Your task to perform on an android device: Search for seafood restaurants on Google Maps Image 0: 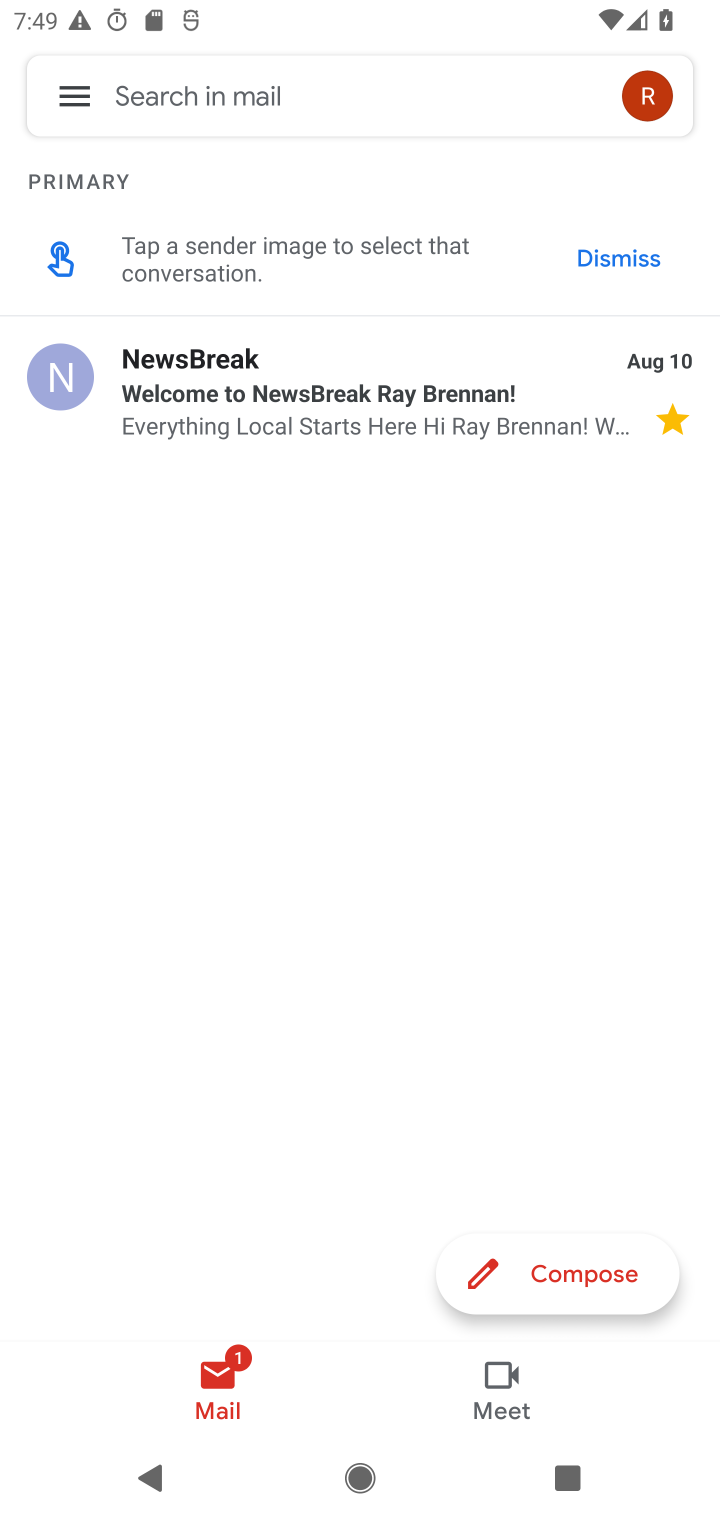
Step 0: press home button
Your task to perform on an android device: Search for seafood restaurants on Google Maps Image 1: 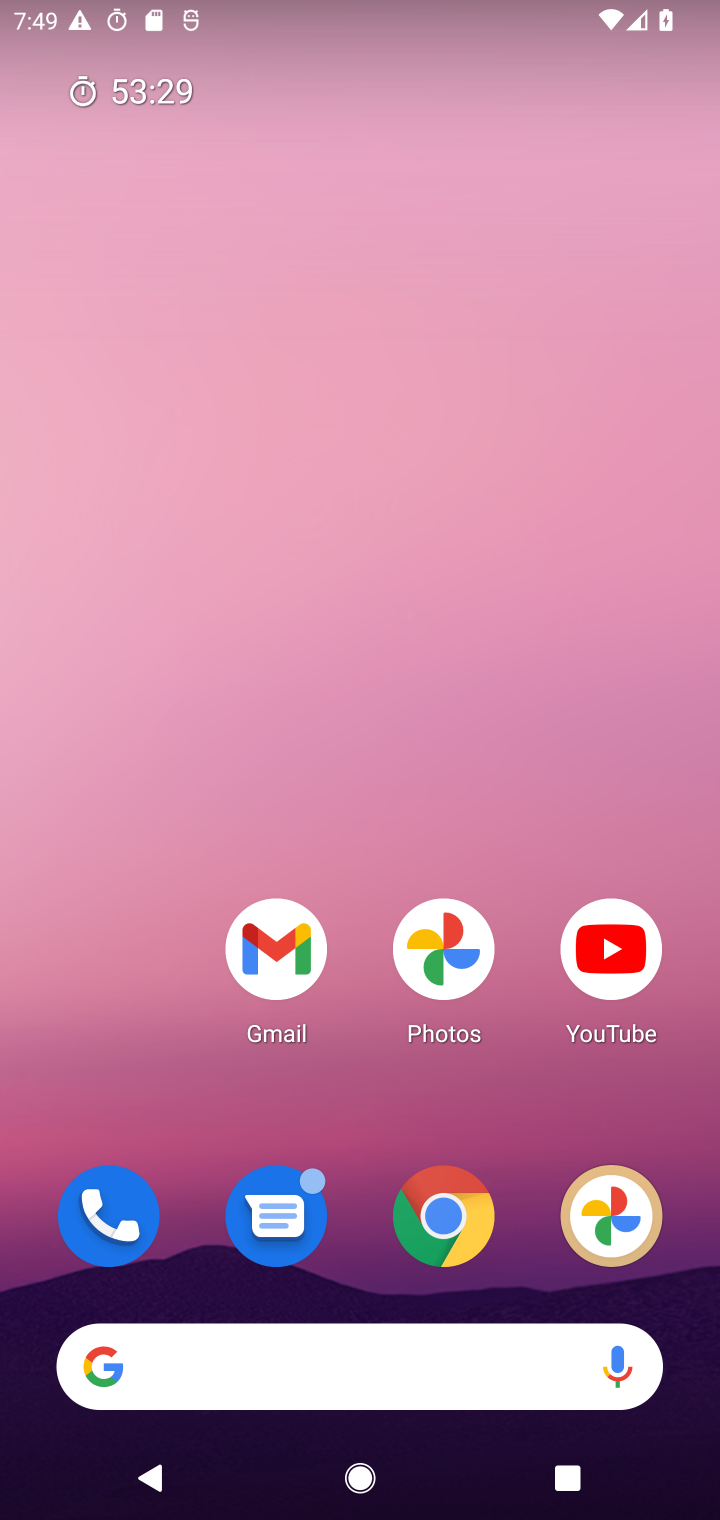
Step 1: drag from (376, 1301) to (402, 222)
Your task to perform on an android device: Search for seafood restaurants on Google Maps Image 2: 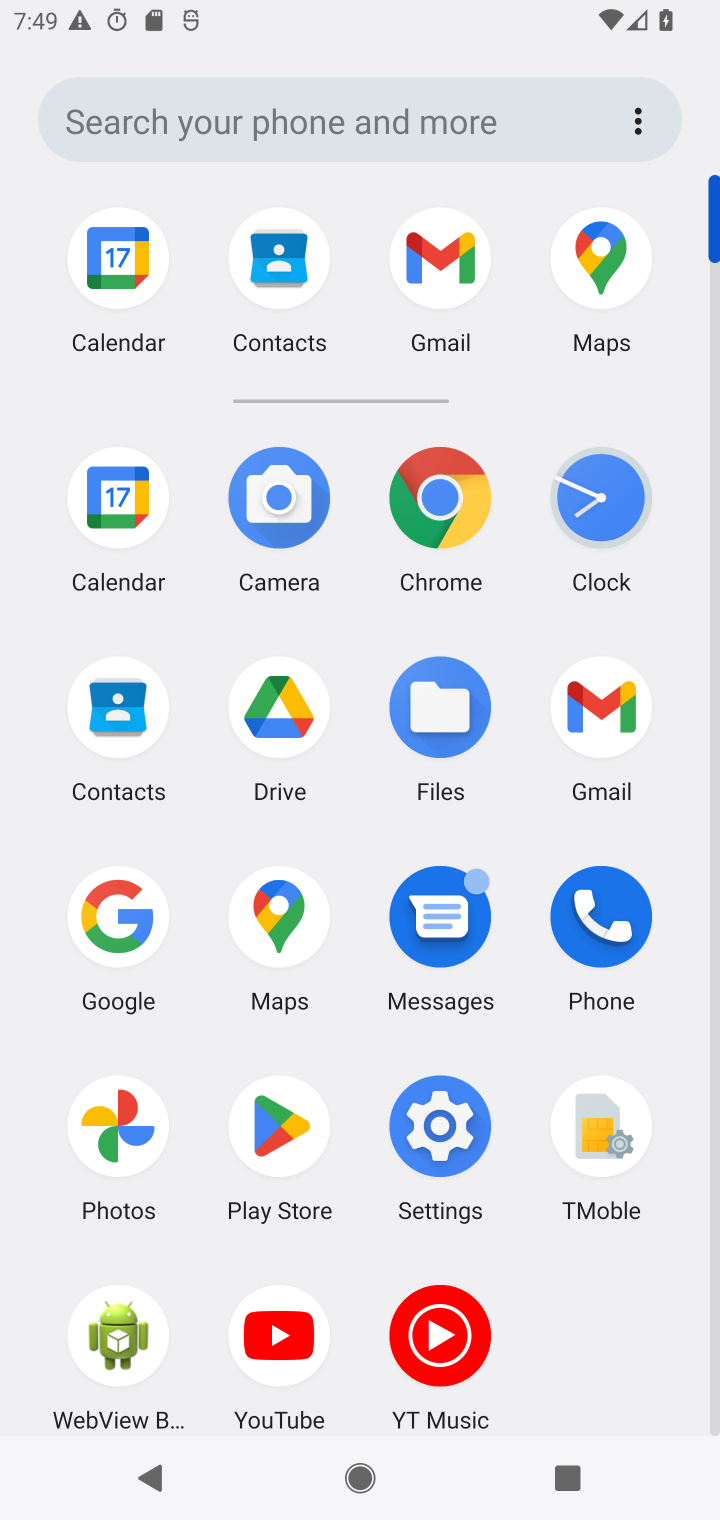
Step 2: click (290, 920)
Your task to perform on an android device: Search for seafood restaurants on Google Maps Image 3: 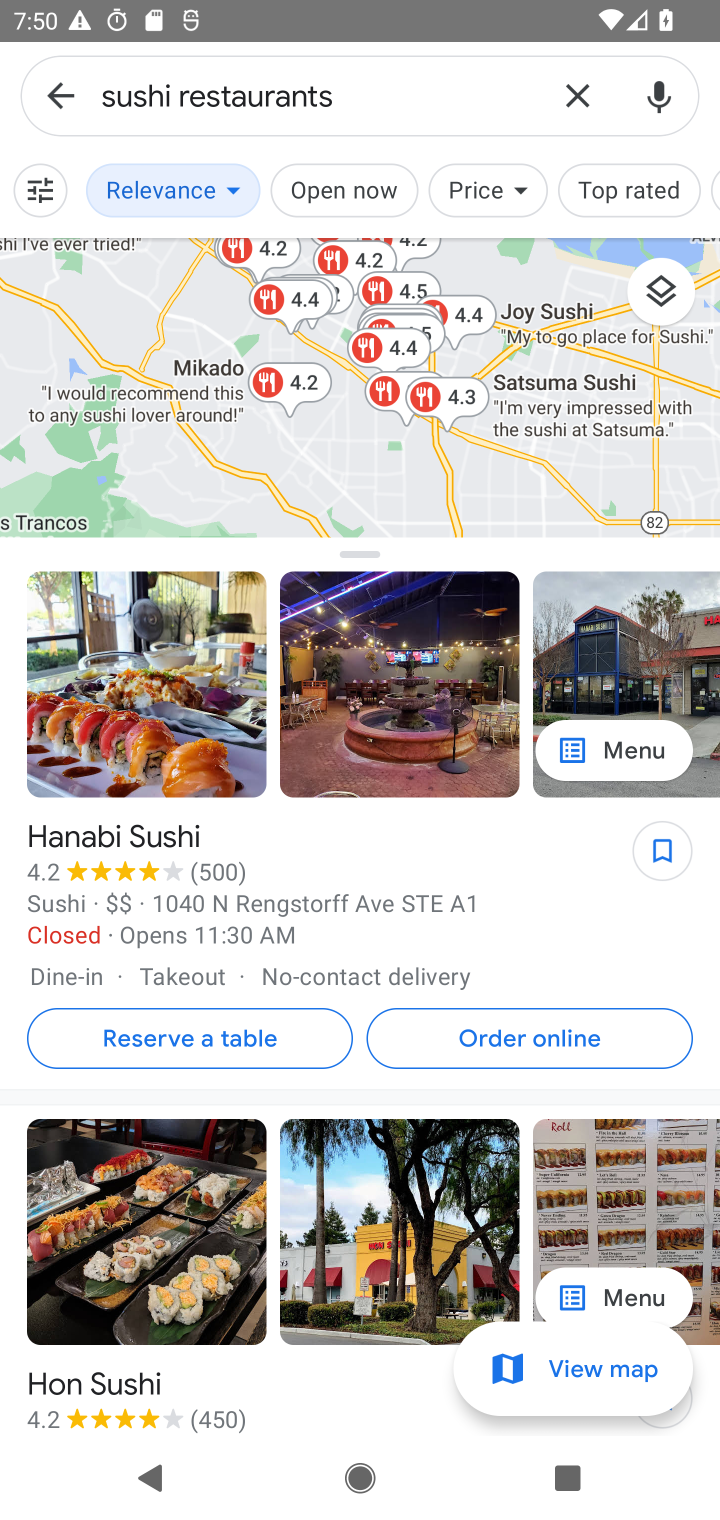
Step 3: click (580, 94)
Your task to perform on an android device: Search for seafood restaurants on Google Maps Image 4: 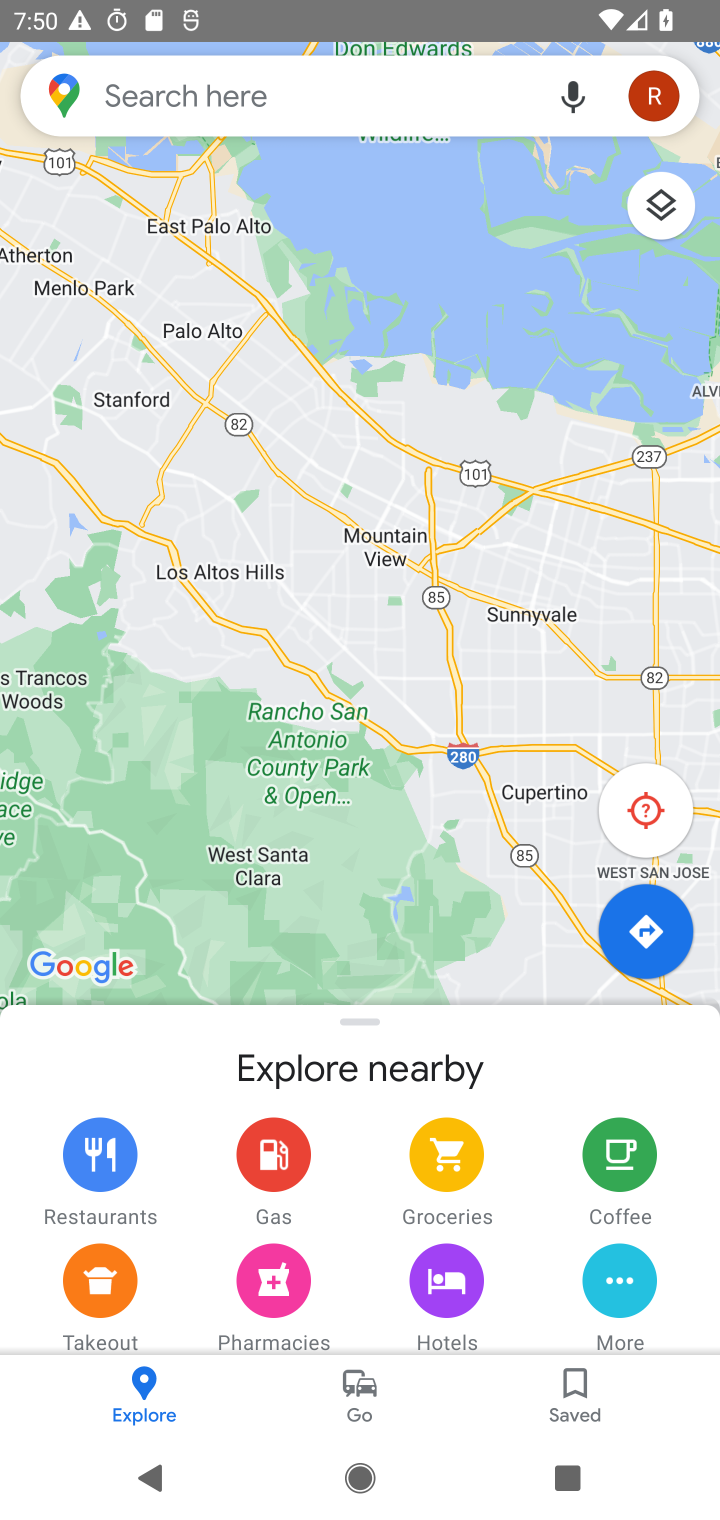
Step 4: click (412, 93)
Your task to perform on an android device: Search for seafood restaurants on Google Maps Image 5: 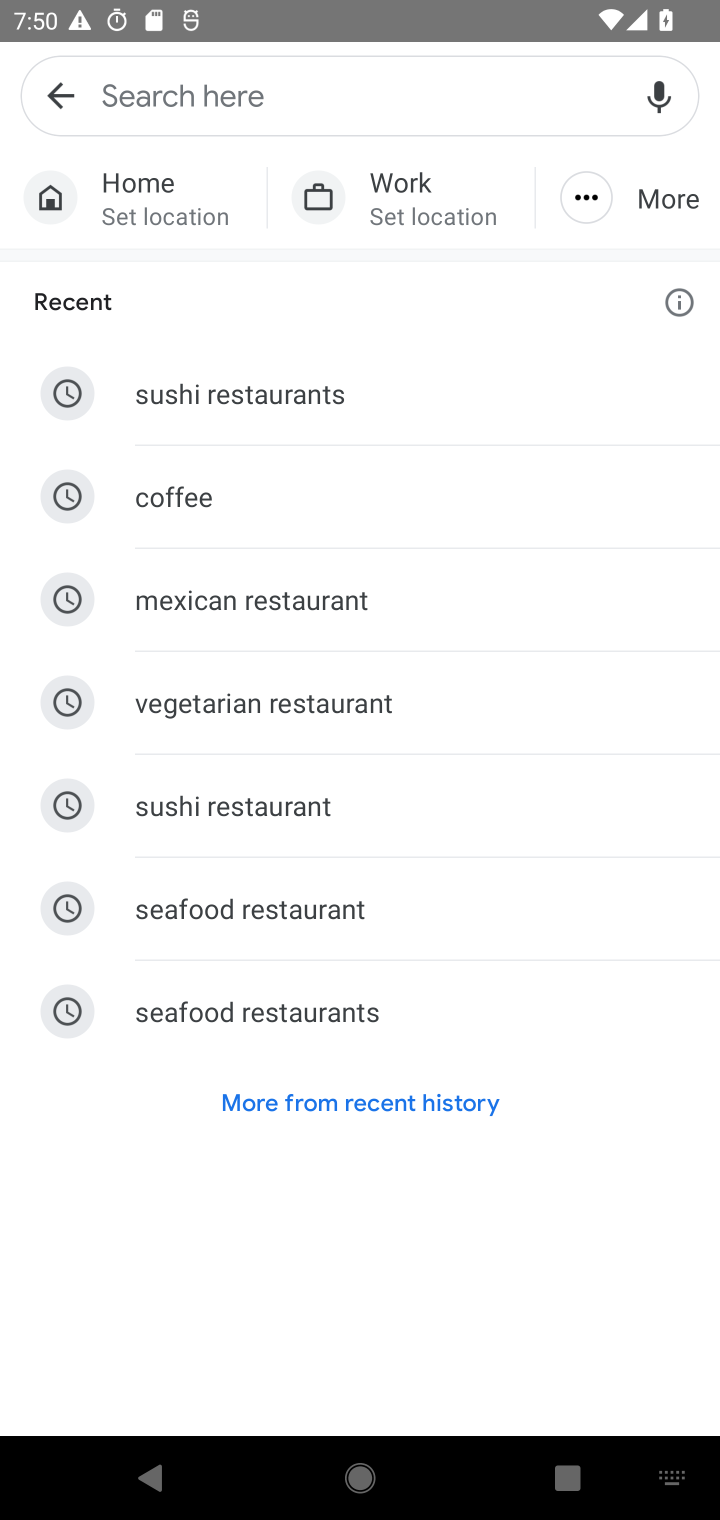
Step 5: type "seafood restaurants"
Your task to perform on an android device: Search for seafood restaurants on Google Maps Image 6: 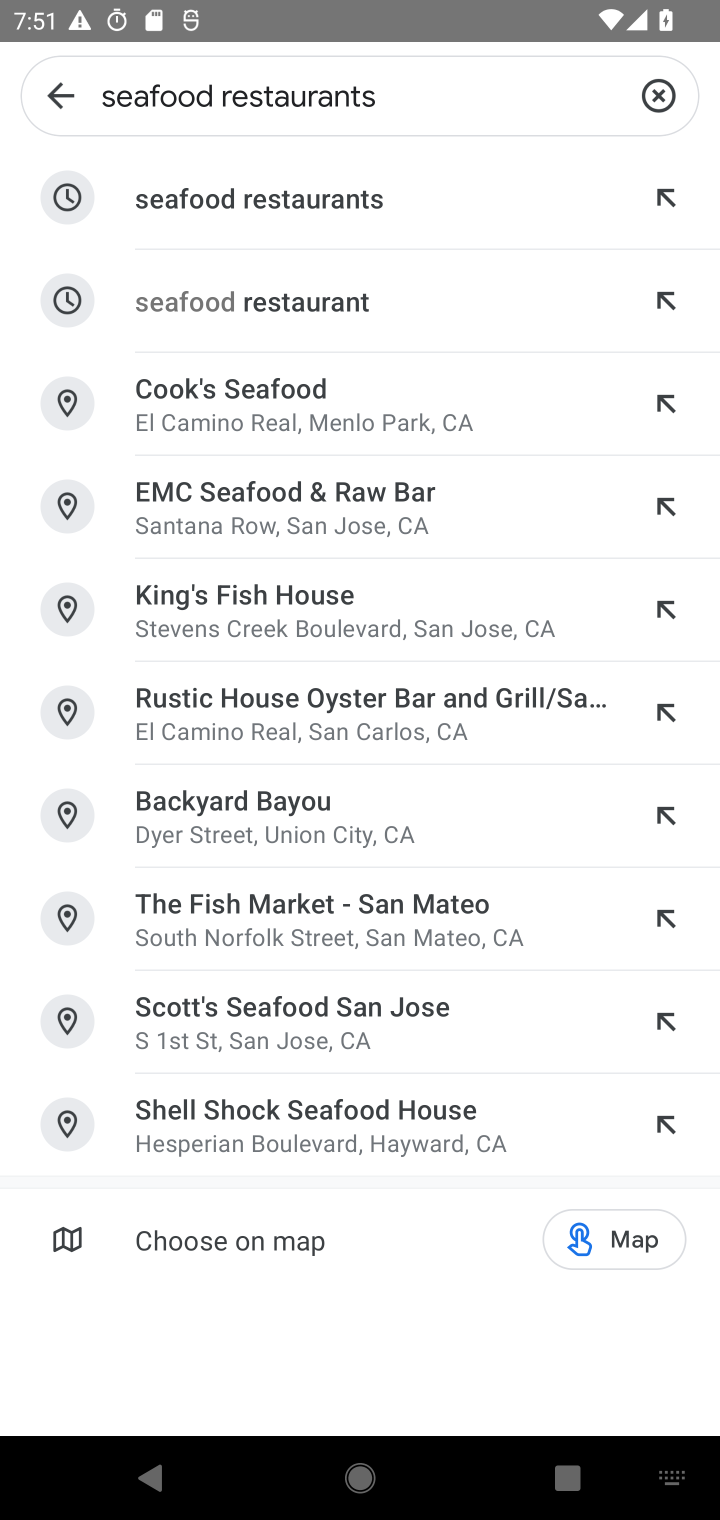
Step 6: type "seafood restaurants"
Your task to perform on an android device: Search for seafood restaurants on Google Maps Image 7: 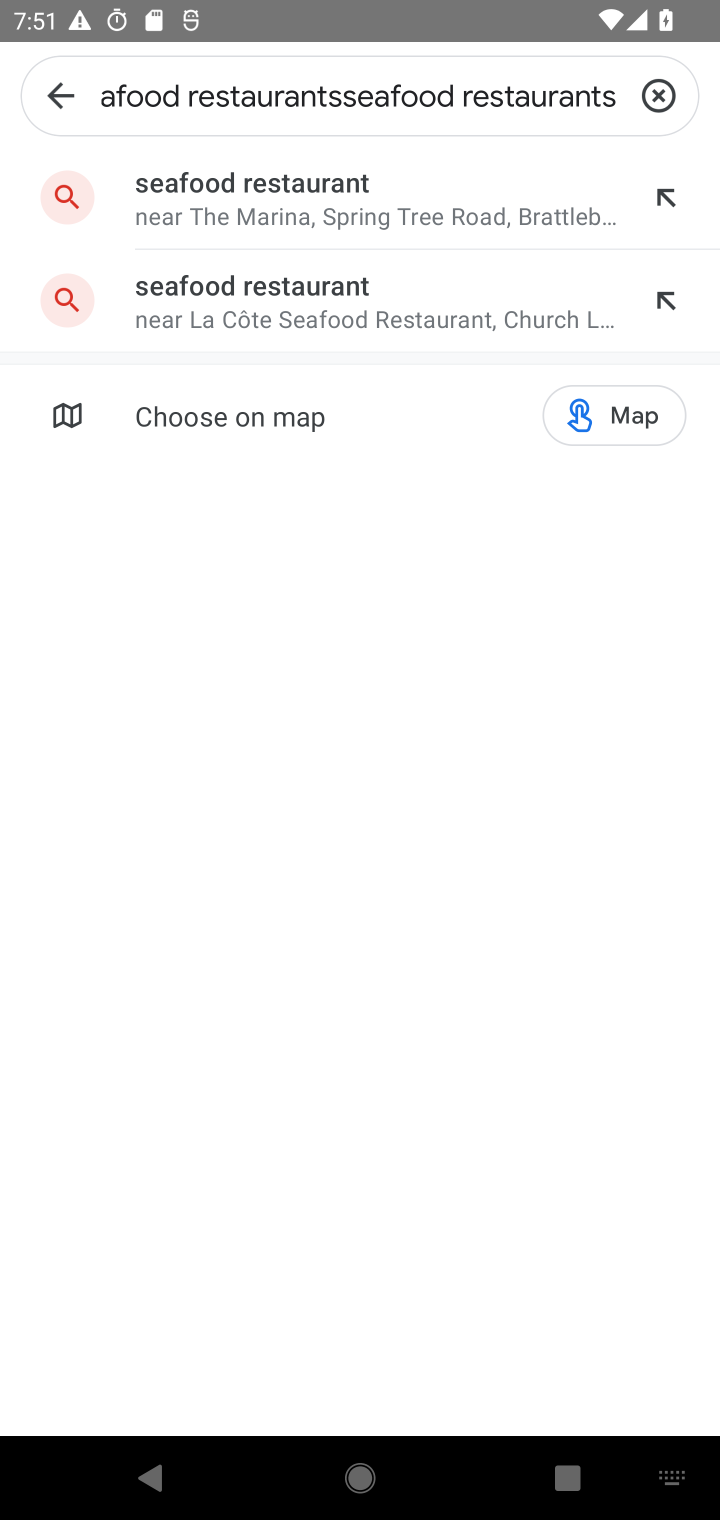
Step 7: click (328, 202)
Your task to perform on an android device: Search for seafood restaurants on Google Maps Image 8: 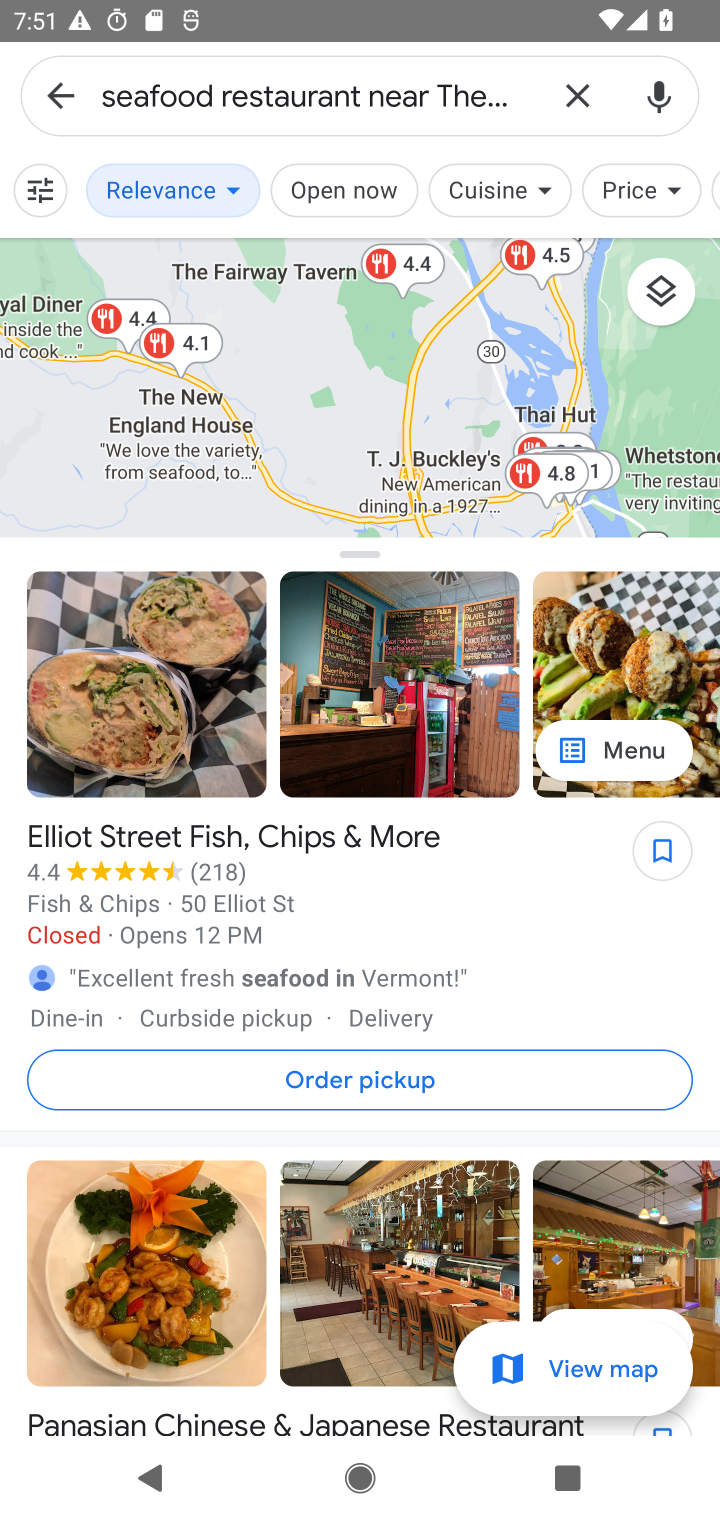
Step 8: task complete